Your task to perform on an android device: check out phone information Image 0: 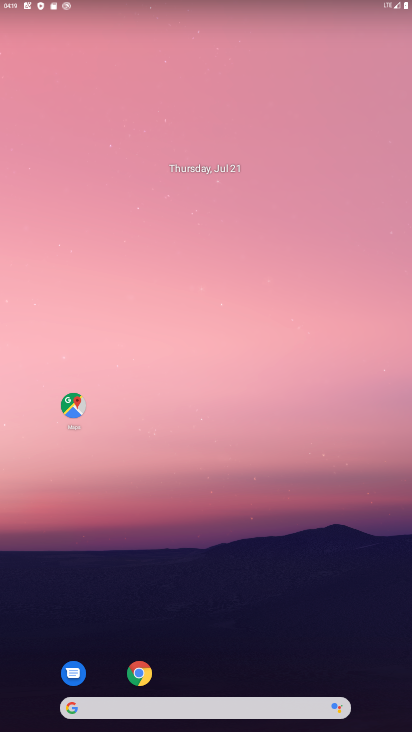
Step 0: drag from (277, 634) to (98, 30)
Your task to perform on an android device: check out phone information Image 1: 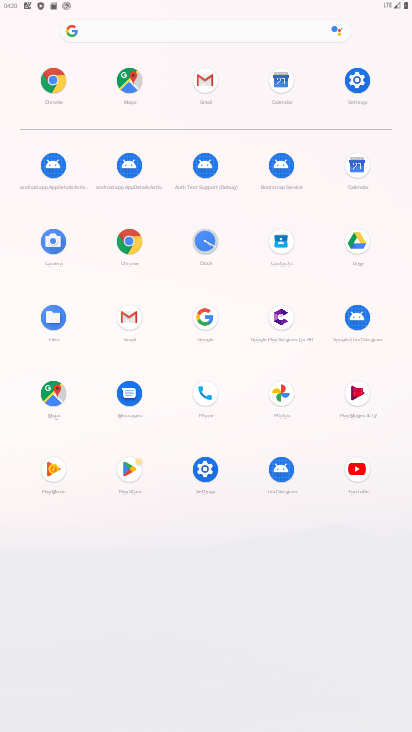
Step 1: click (207, 397)
Your task to perform on an android device: check out phone information Image 2: 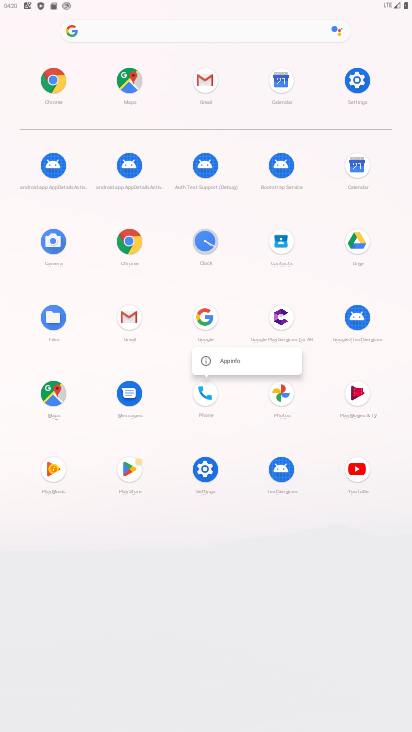
Step 2: click (224, 362)
Your task to perform on an android device: check out phone information Image 3: 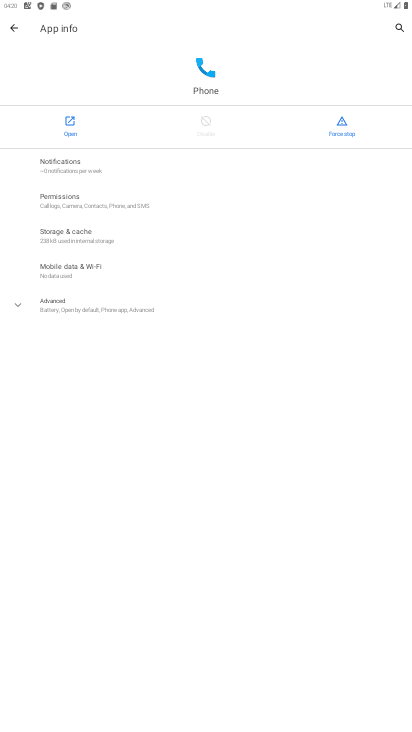
Step 3: task complete